Your task to perform on an android device: refresh tabs in the chrome app Image 0: 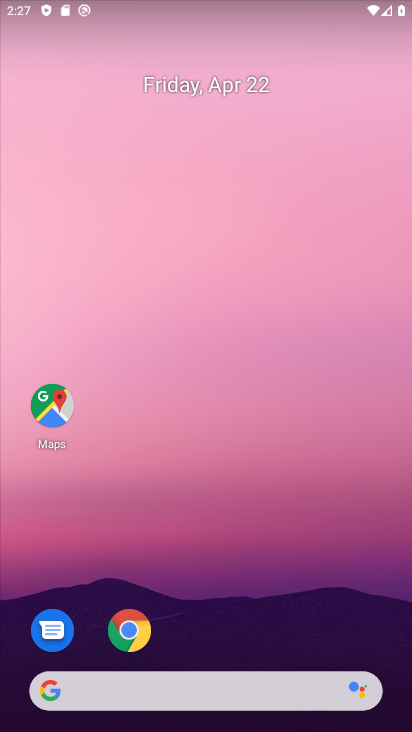
Step 0: drag from (381, 553) to (384, 195)
Your task to perform on an android device: refresh tabs in the chrome app Image 1: 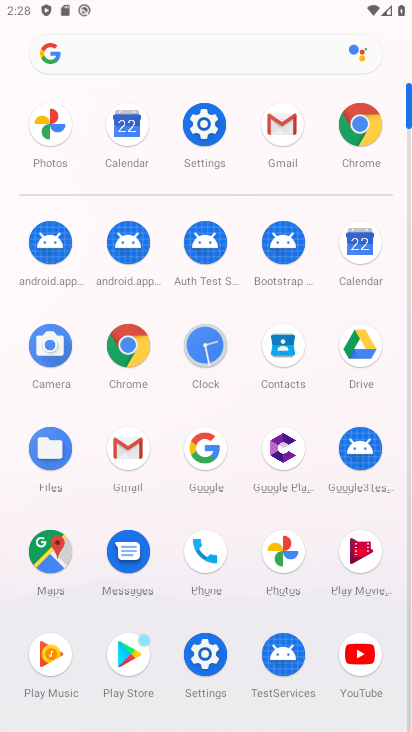
Step 1: click (140, 356)
Your task to perform on an android device: refresh tabs in the chrome app Image 2: 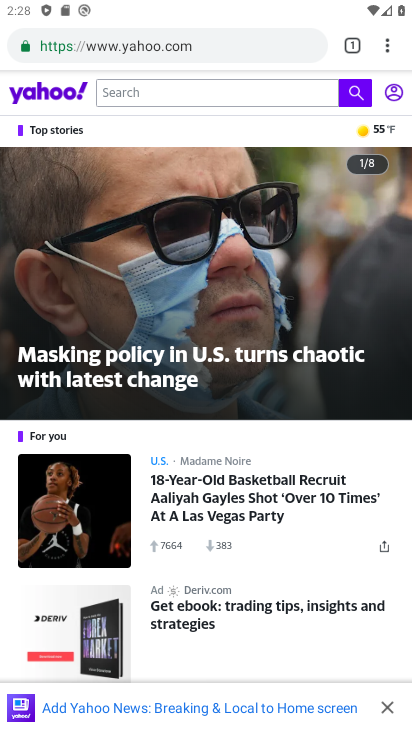
Step 2: click (390, 53)
Your task to perform on an android device: refresh tabs in the chrome app Image 3: 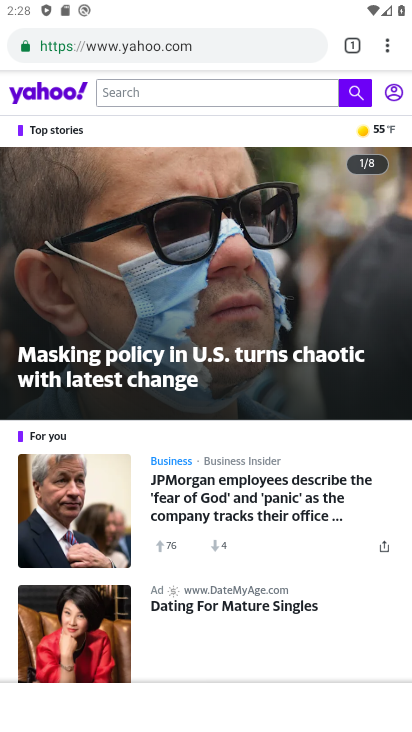
Step 3: task complete